Your task to perform on an android device: change keyboard looks Image 0: 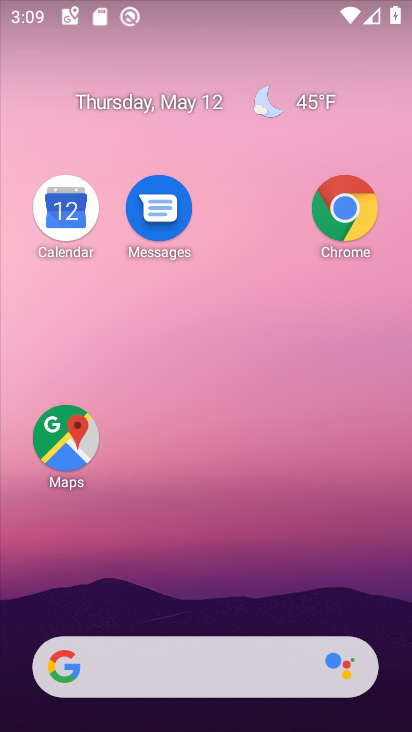
Step 0: drag from (238, 378) to (297, 10)
Your task to perform on an android device: change keyboard looks Image 1: 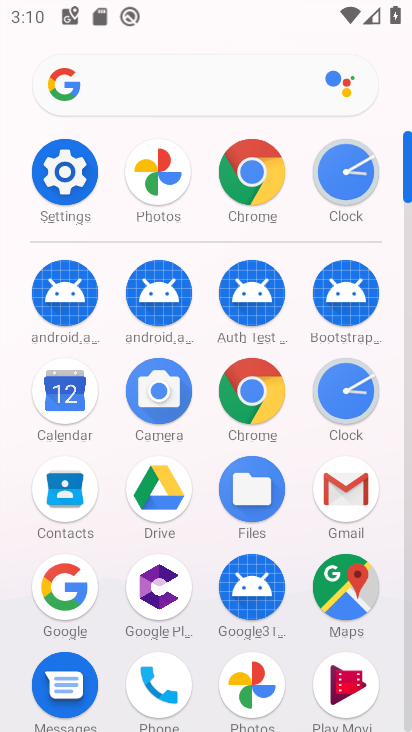
Step 1: click (44, 166)
Your task to perform on an android device: change keyboard looks Image 2: 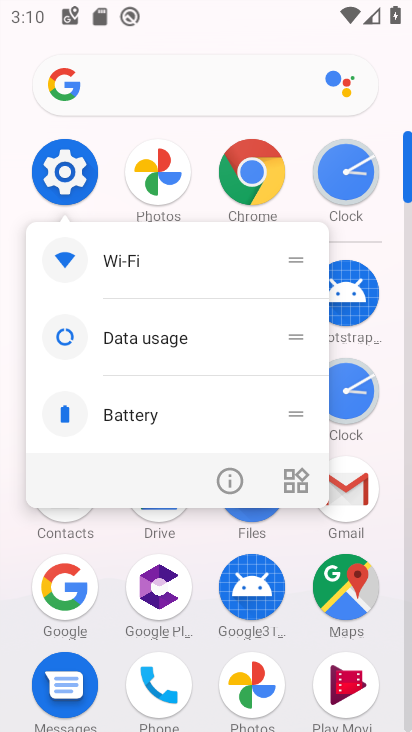
Step 2: click (227, 480)
Your task to perform on an android device: change keyboard looks Image 3: 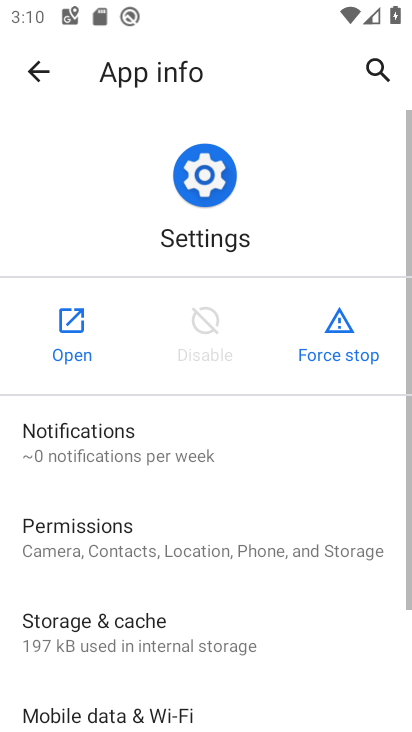
Step 3: click (73, 307)
Your task to perform on an android device: change keyboard looks Image 4: 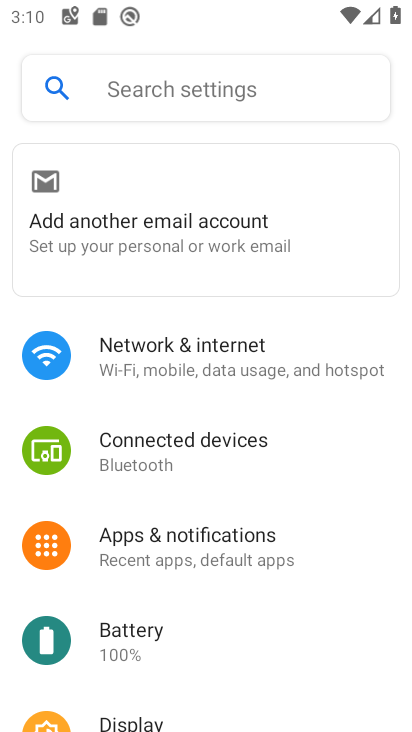
Step 4: drag from (220, 552) to (311, 9)
Your task to perform on an android device: change keyboard looks Image 5: 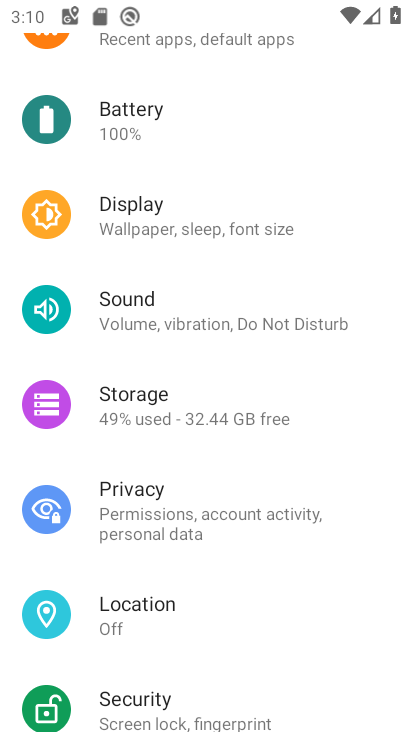
Step 5: drag from (240, 674) to (255, 33)
Your task to perform on an android device: change keyboard looks Image 6: 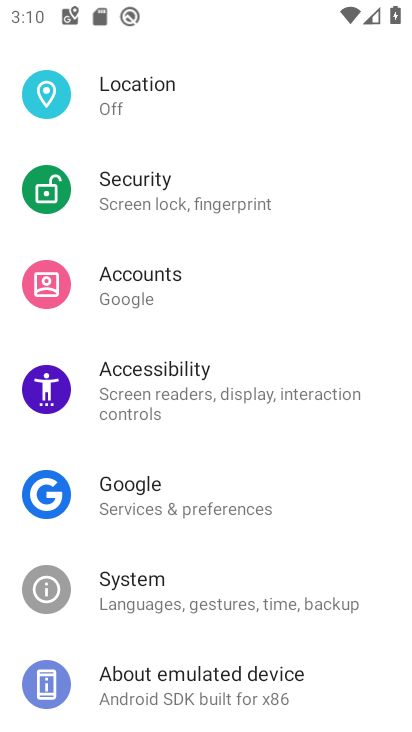
Step 6: click (177, 602)
Your task to perform on an android device: change keyboard looks Image 7: 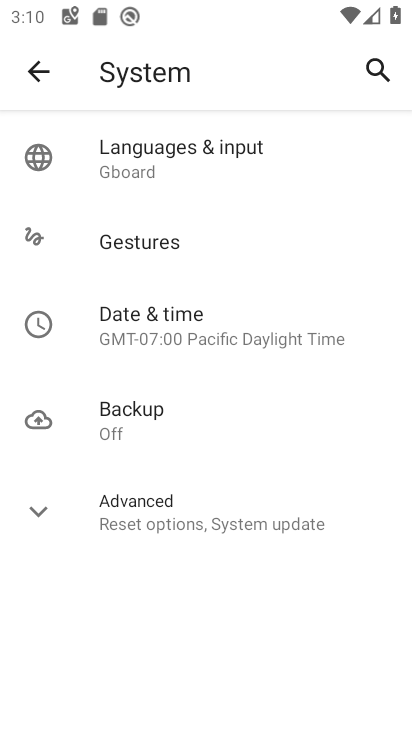
Step 7: click (224, 145)
Your task to perform on an android device: change keyboard looks Image 8: 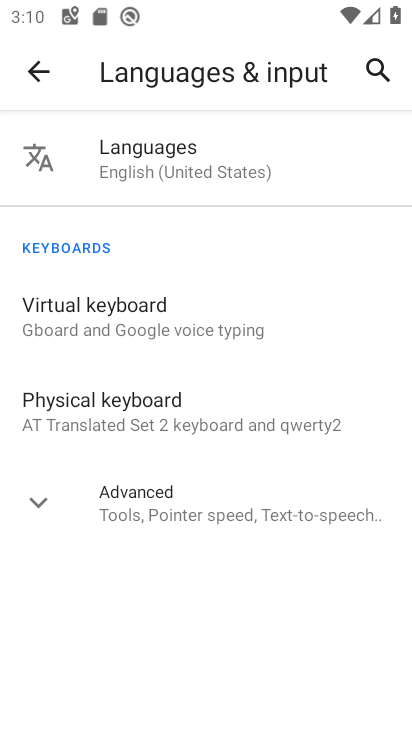
Step 8: click (135, 311)
Your task to perform on an android device: change keyboard looks Image 9: 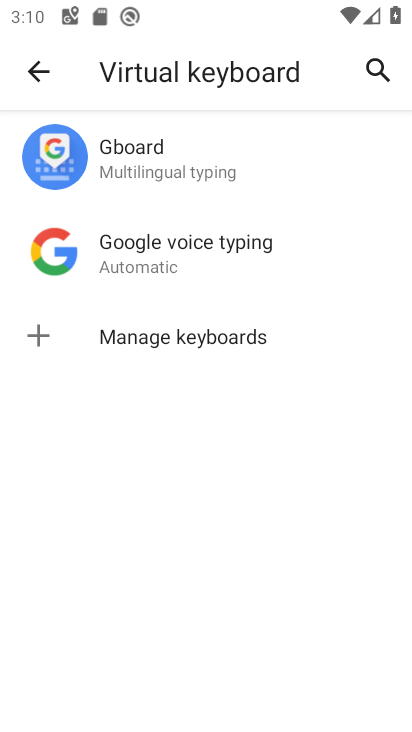
Step 9: click (173, 172)
Your task to perform on an android device: change keyboard looks Image 10: 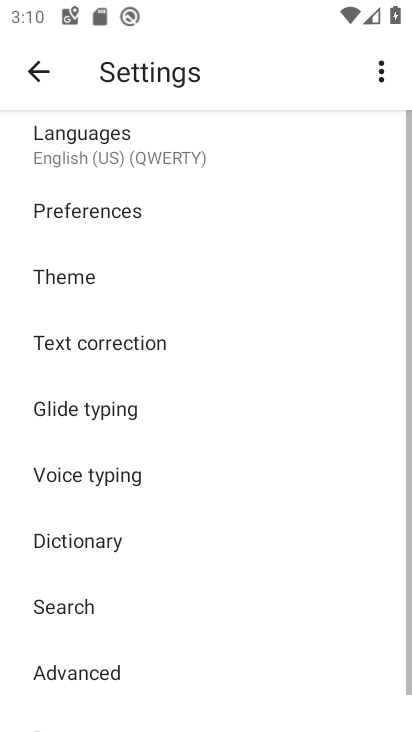
Step 10: click (76, 272)
Your task to perform on an android device: change keyboard looks Image 11: 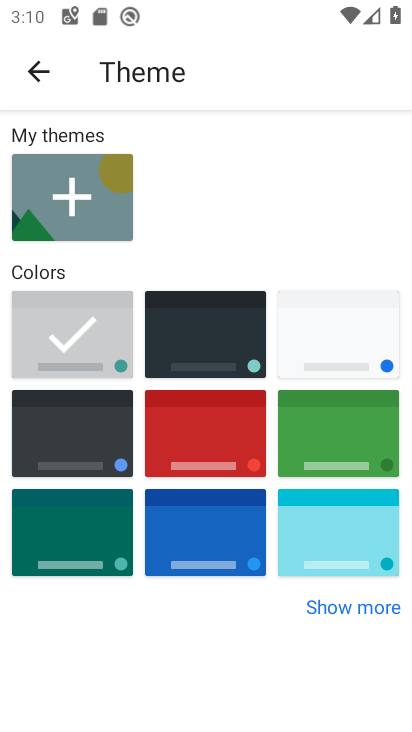
Step 11: click (206, 422)
Your task to perform on an android device: change keyboard looks Image 12: 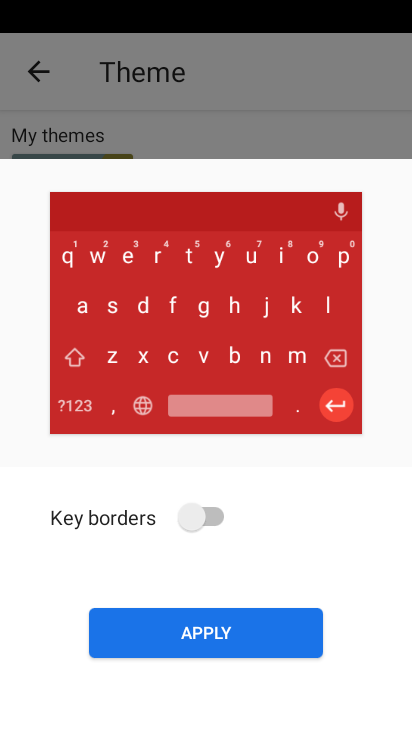
Step 12: click (177, 623)
Your task to perform on an android device: change keyboard looks Image 13: 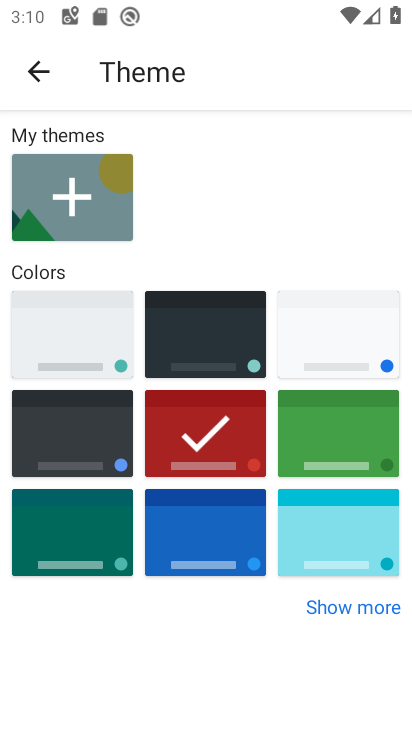
Step 13: task complete